Your task to perform on an android device: open app "Gmail" (install if not already installed), go to login, and select forgot password Image 0: 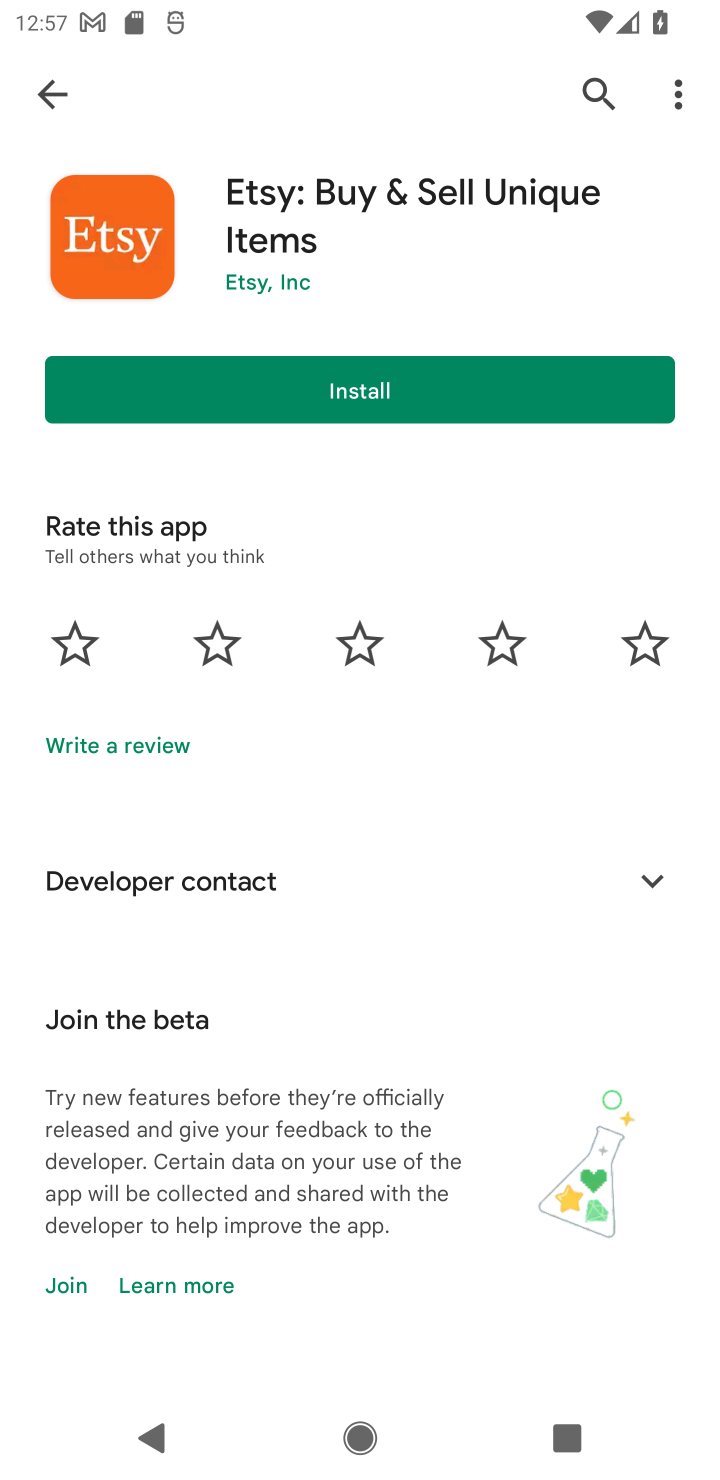
Step 0: press home button
Your task to perform on an android device: open app "Gmail" (install if not already installed), go to login, and select forgot password Image 1: 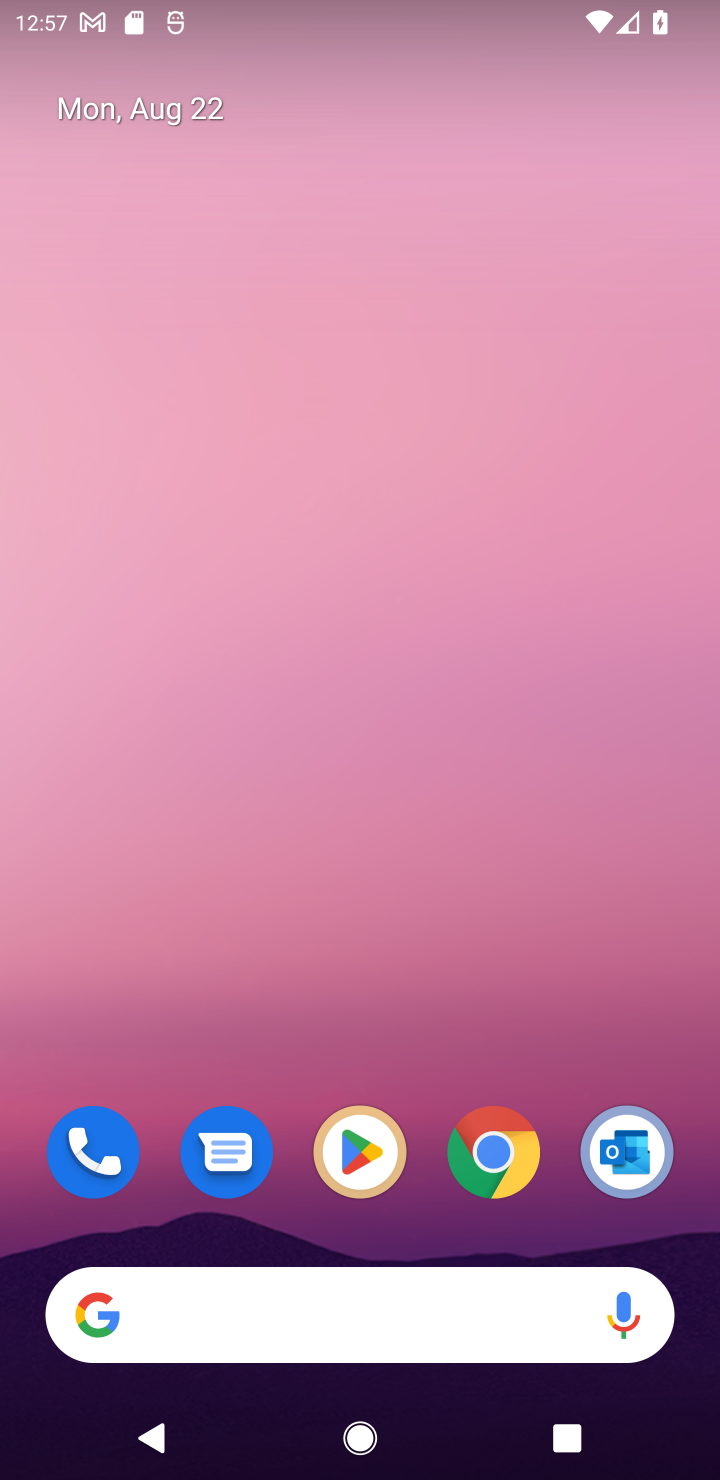
Step 1: click (350, 1179)
Your task to perform on an android device: open app "Gmail" (install if not already installed), go to login, and select forgot password Image 2: 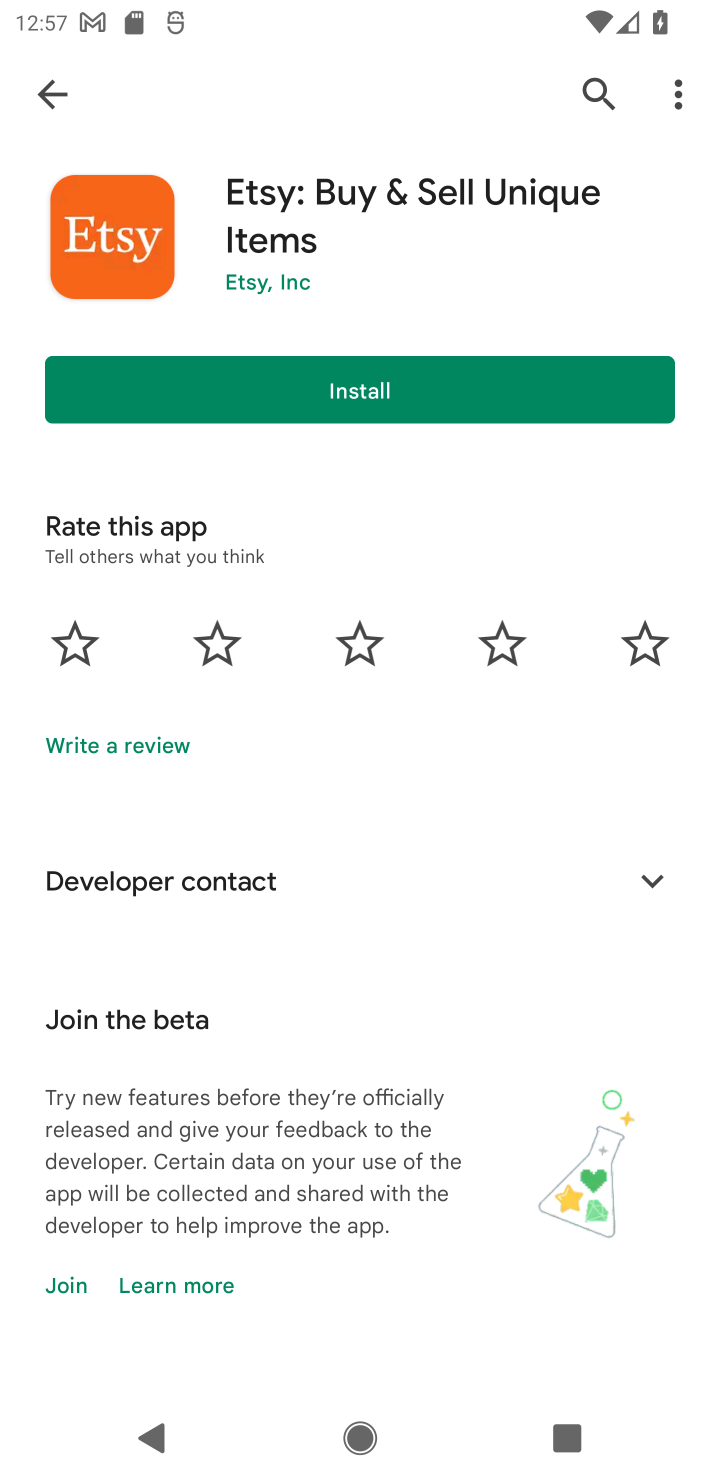
Step 2: click (48, 87)
Your task to perform on an android device: open app "Gmail" (install if not already installed), go to login, and select forgot password Image 3: 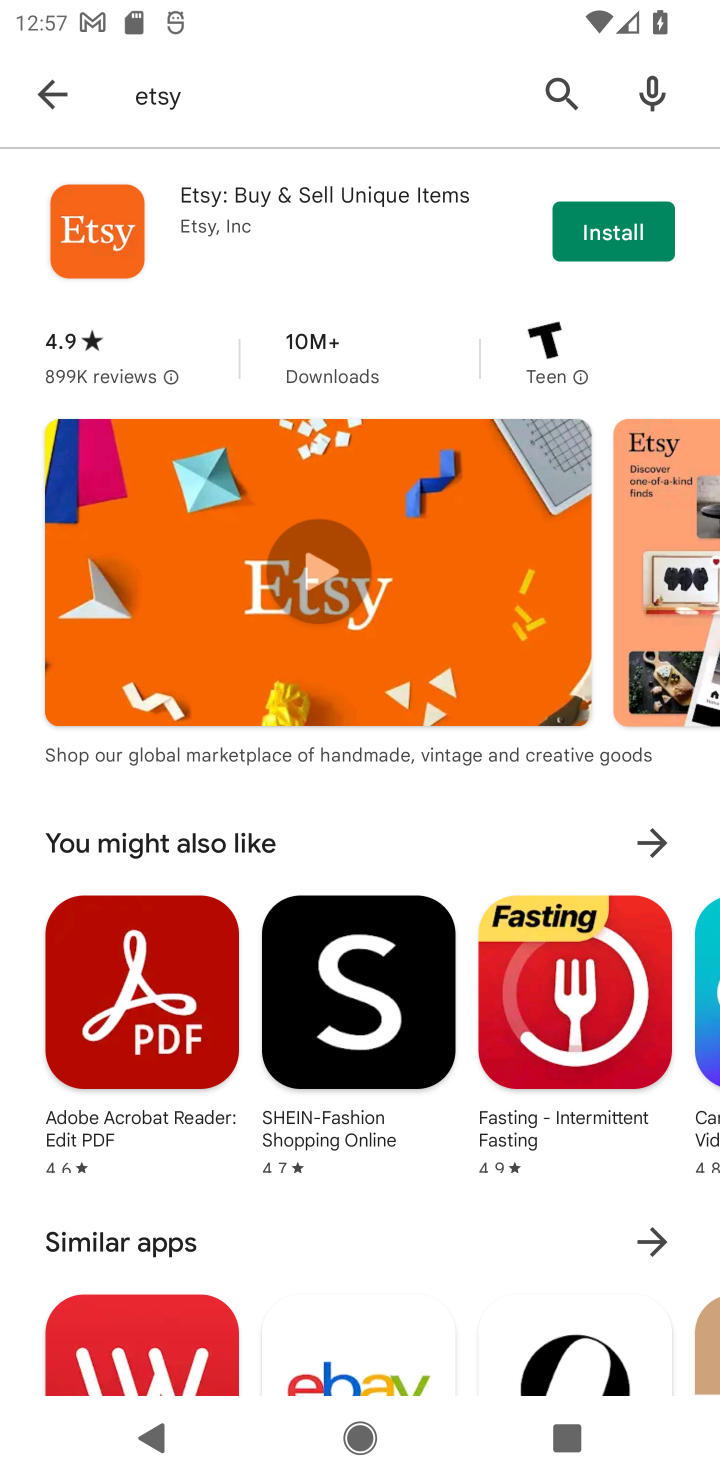
Step 3: click (48, 87)
Your task to perform on an android device: open app "Gmail" (install if not already installed), go to login, and select forgot password Image 4: 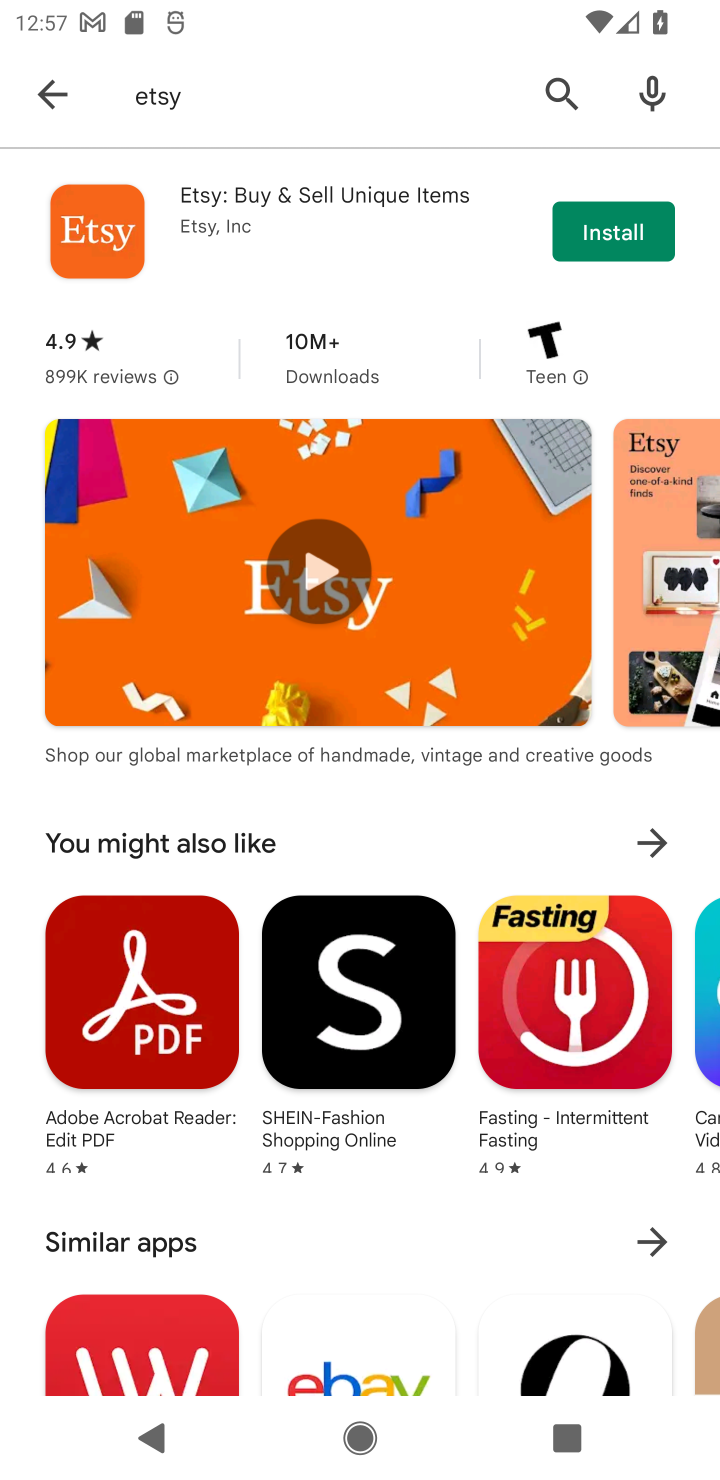
Step 4: click (48, 87)
Your task to perform on an android device: open app "Gmail" (install if not already installed), go to login, and select forgot password Image 5: 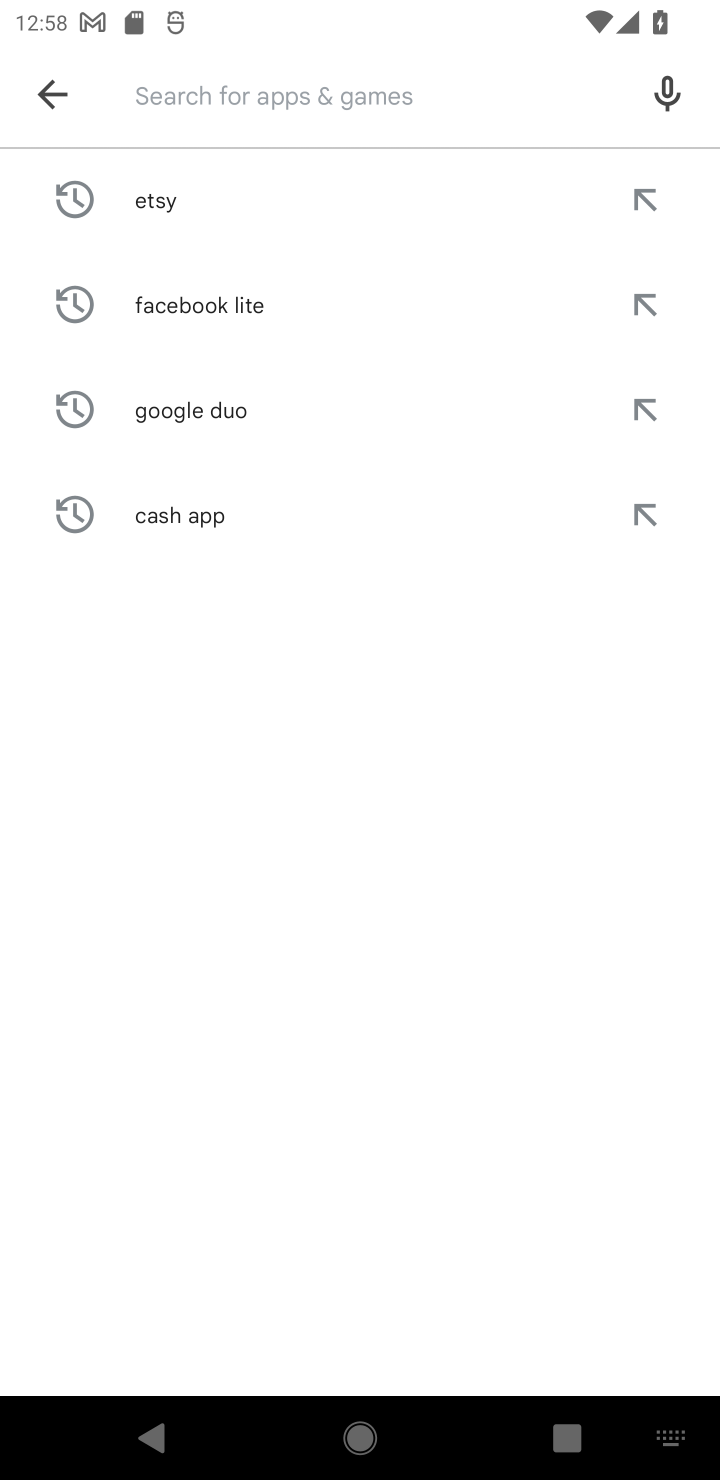
Step 5: type "Gmail"
Your task to perform on an android device: open app "Gmail" (install if not already installed), go to login, and select forgot password Image 6: 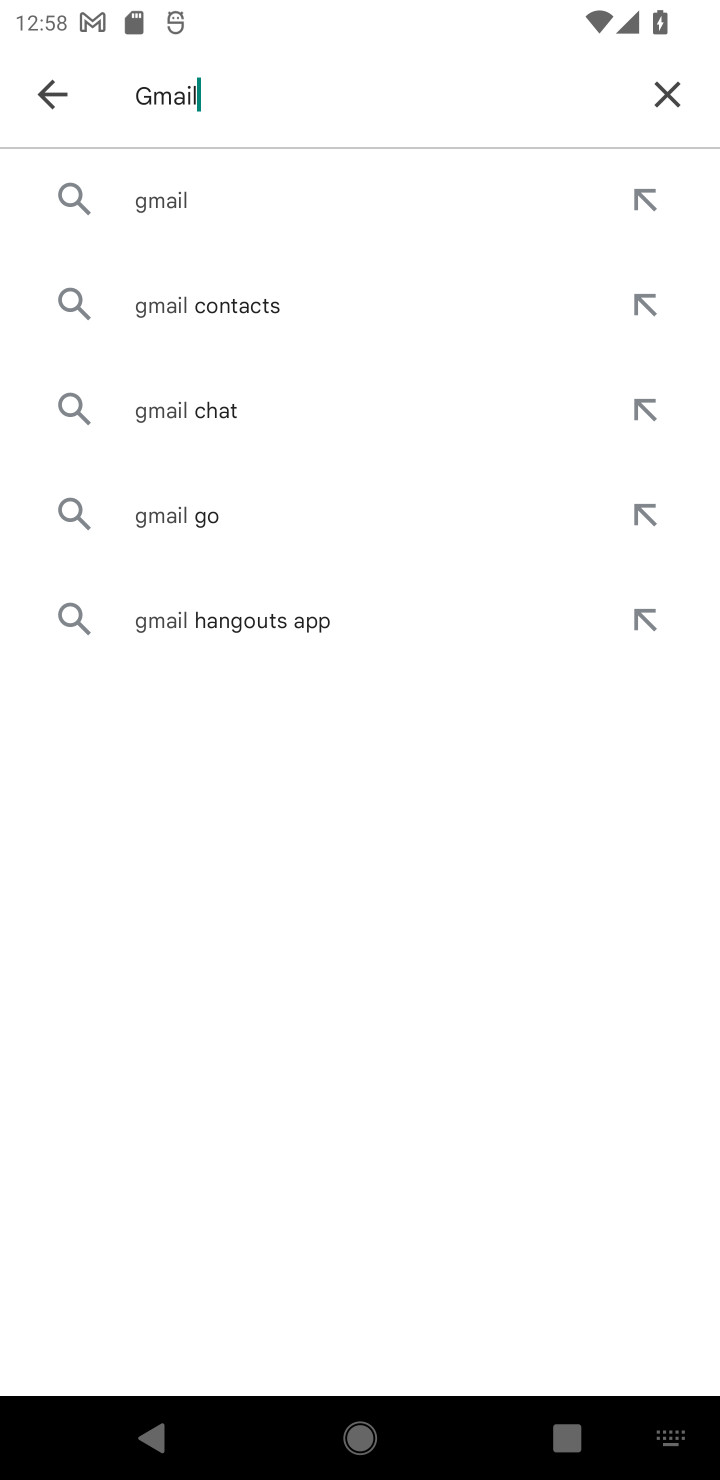
Step 6: click (162, 216)
Your task to perform on an android device: open app "Gmail" (install if not already installed), go to login, and select forgot password Image 7: 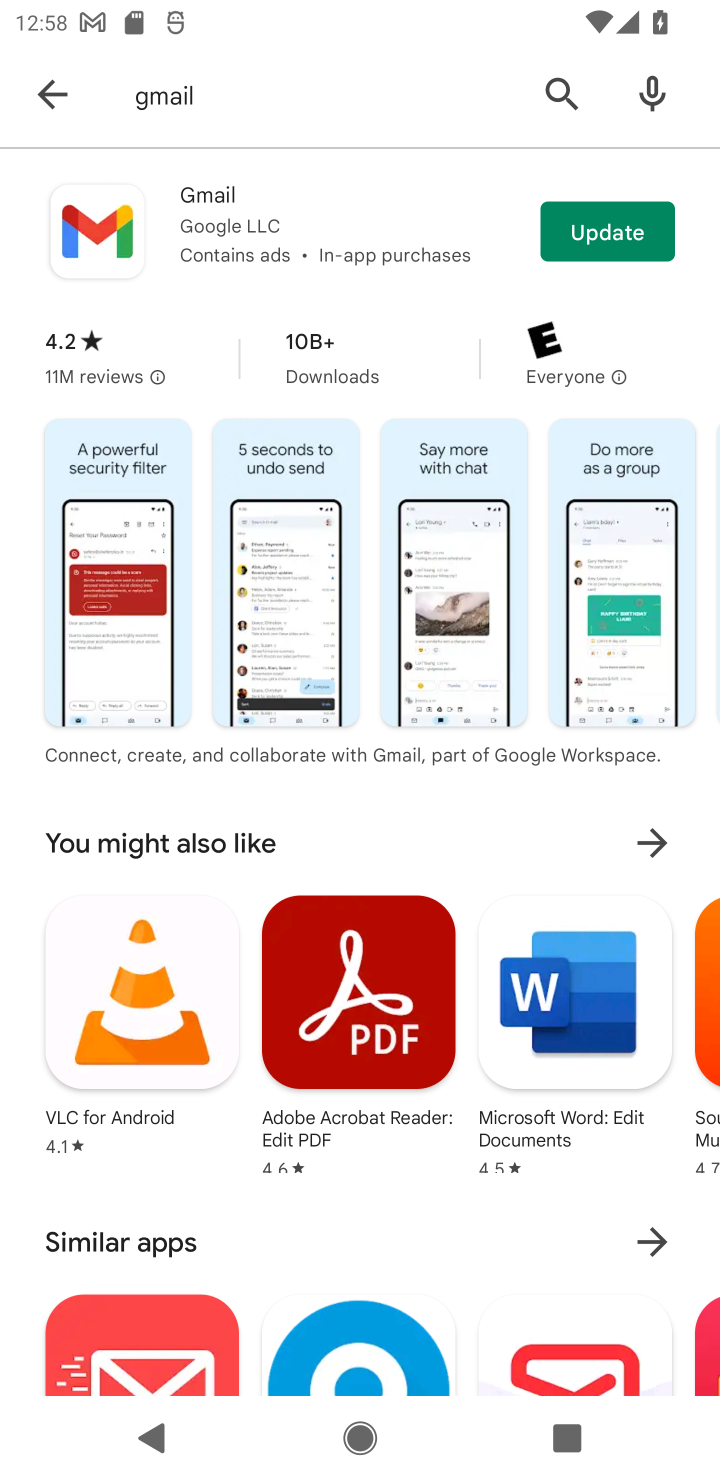
Step 7: click (579, 235)
Your task to perform on an android device: open app "Gmail" (install if not already installed), go to login, and select forgot password Image 8: 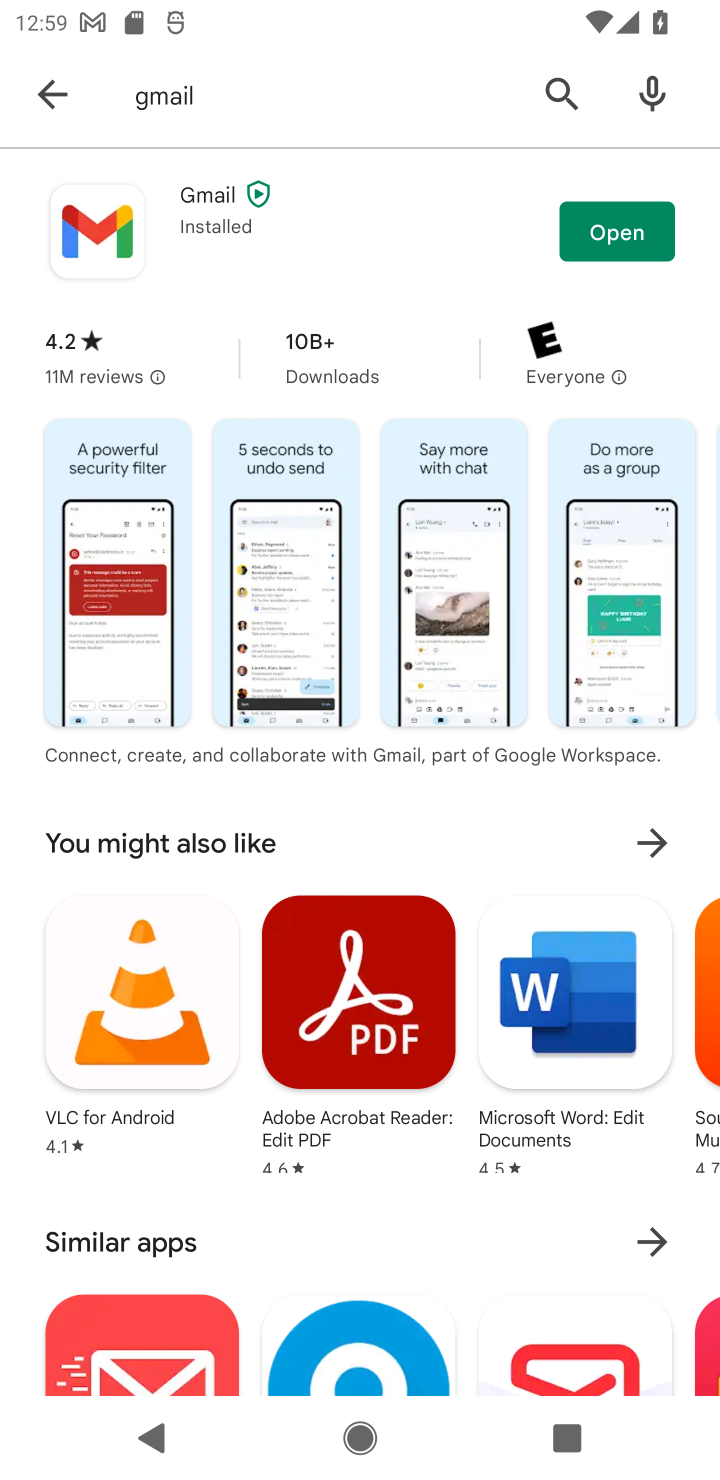
Step 8: click (623, 246)
Your task to perform on an android device: open app "Gmail" (install if not already installed), go to login, and select forgot password Image 9: 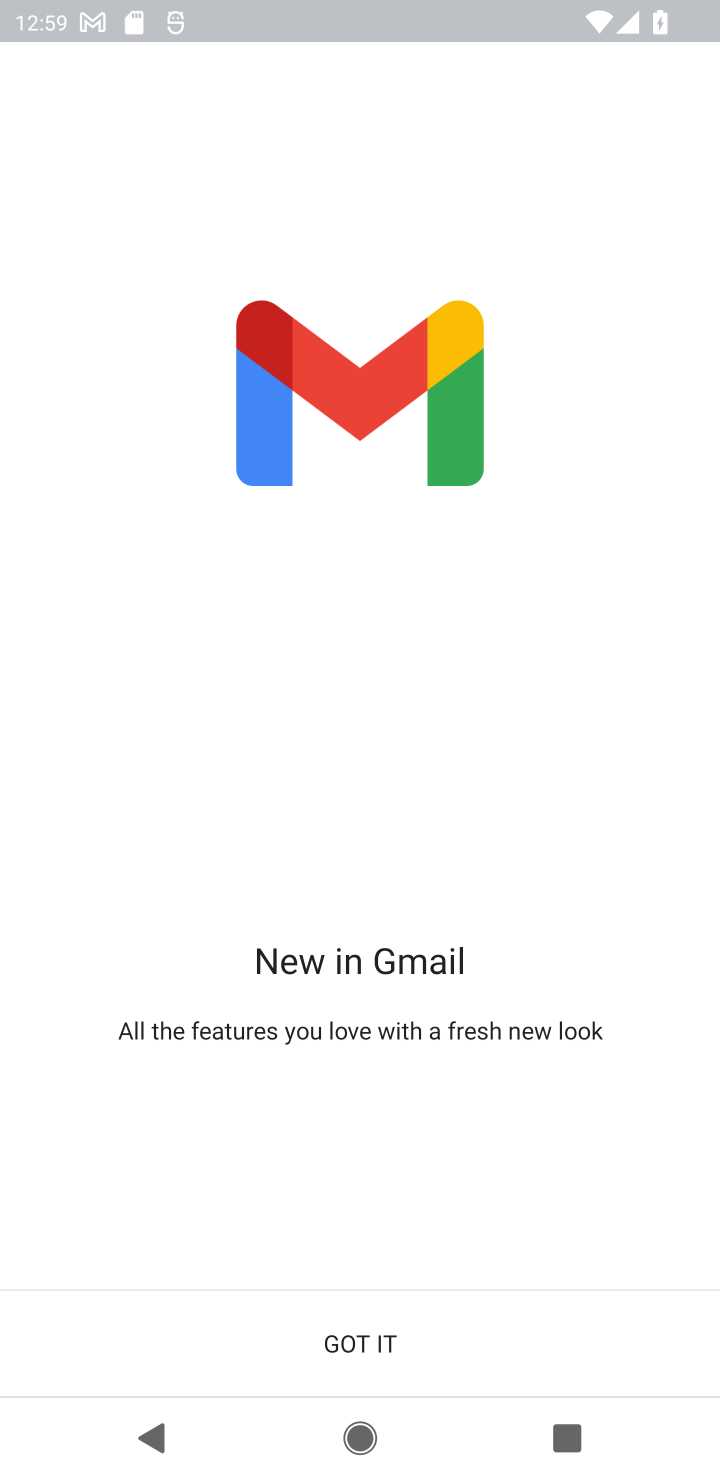
Step 9: task complete